Your task to perform on an android device: set default search engine in the chrome app Image 0: 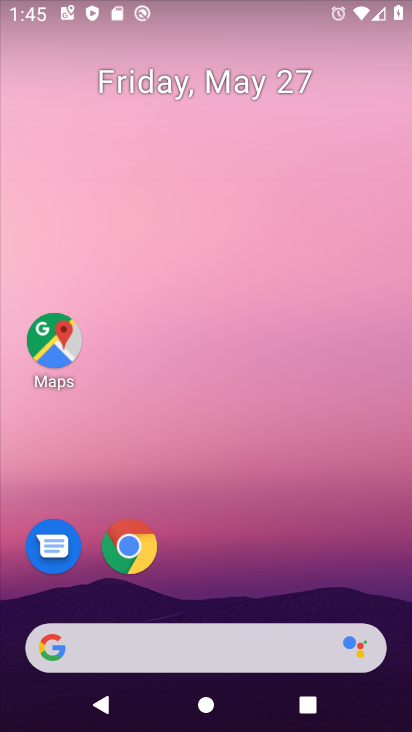
Step 0: drag from (261, 665) to (283, 335)
Your task to perform on an android device: set default search engine in the chrome app Image 1: 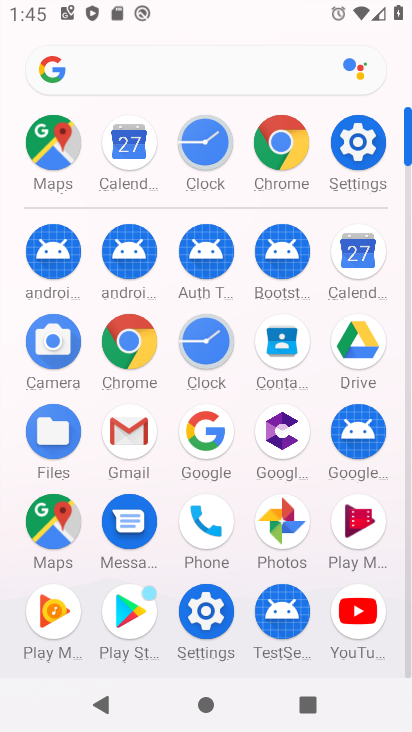
Step 1: click (267, 142)
Your task to perform on an android device: set default search engine in the chrome app Image 2: 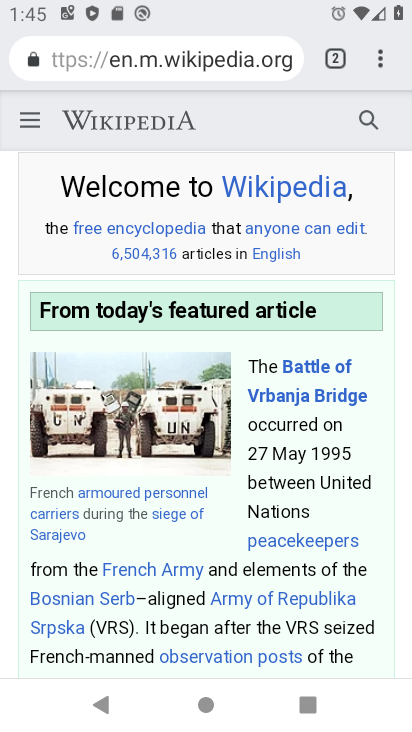
Step 2: click (379, 63)
Your task to perform on an android device: set default search engine in the chrome app Image 3: 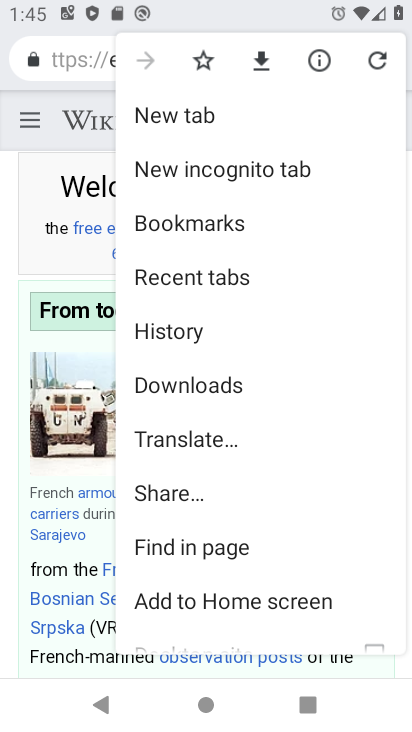
Step 3: drag from (174, 597) to (169, 281)
Your task to perform on an android device: set default search engine in the chrome app Image 4: 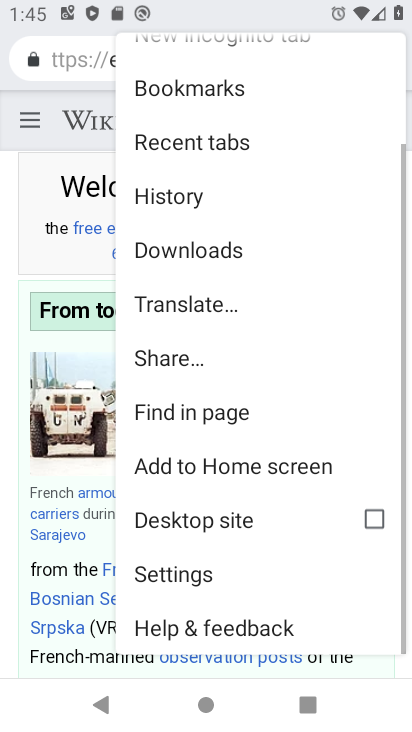
Step 4: click (208, 568)
Your task to perform on an android device: set default search engine in the chrome app Image 5: 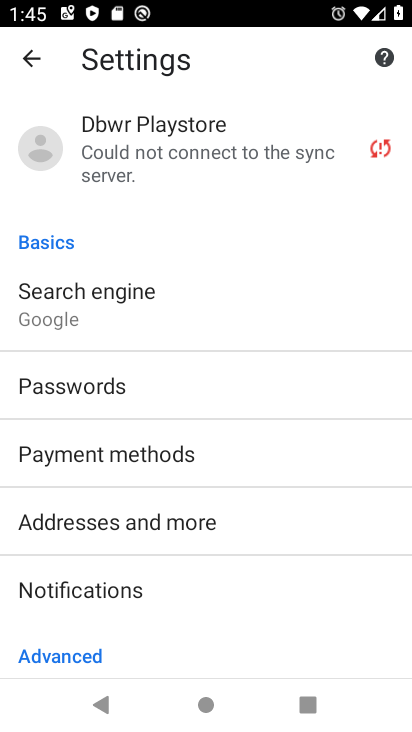
Step 5: drag from (105, 598) to (186, 277)
Your task to perform on an android device: set default search engine in the chrome app Image 6: 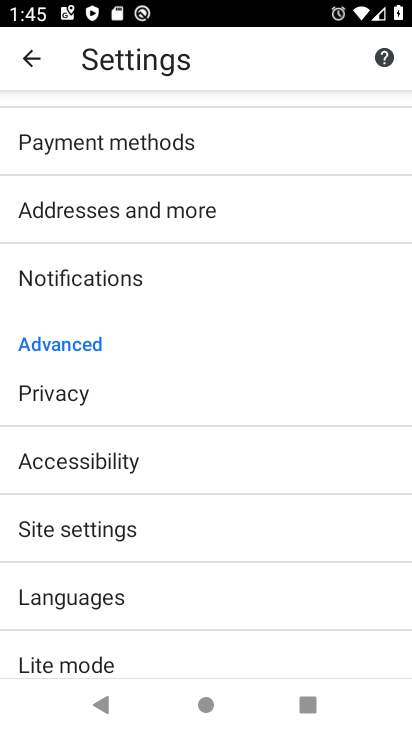
Step 6: drag from (155, 538) to (170, 461)
Your task to perform on an android device: set default search engine in the chrome app Image 7: 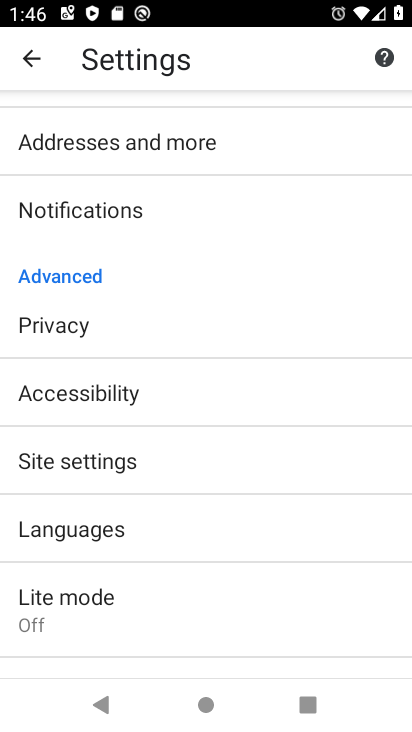
Step 7: drag from (99, 620) to (111, 439)
Your task to perform on an android device: set default search engine in the chrome app Image 8: 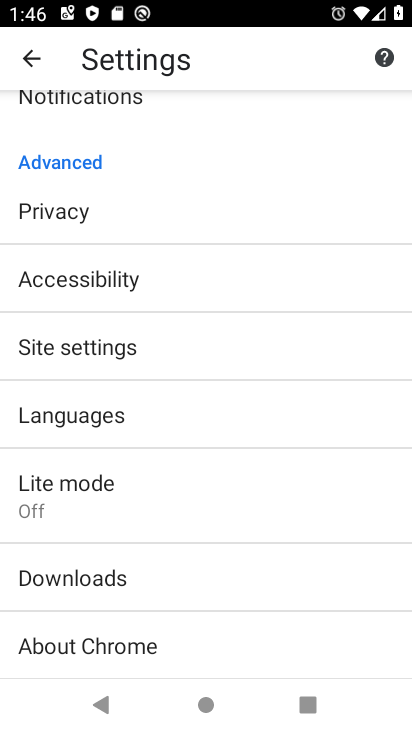
Step 8: drag from (115, 280) to (138, 411)
Your task to perform on an android device: set default search engine in the chrome app Image 9: 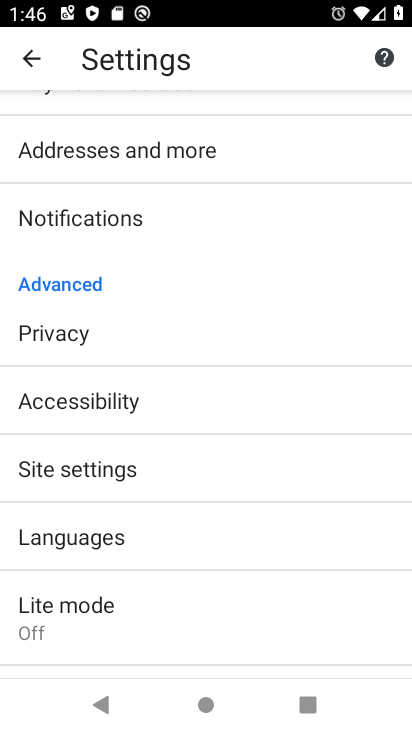
Step 9: drag from (179, 326) to (194, 417)
Your task to perform on an android device: set default search engine in the chrome app Image 10: 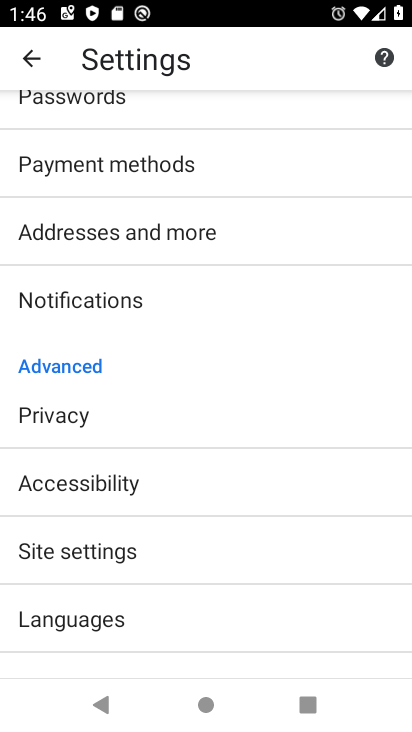
Step 10: drag from (181, 285) to (159, 581)
Your task to perform on an android device: set default search engine in the chrome app Image 11: 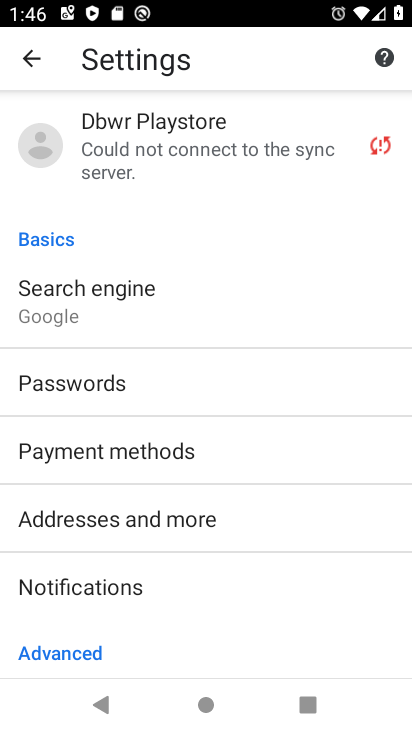
Step 11: click (94, 293)
Your task to perform on an android device: set default search engine in the chrome app Image 12: 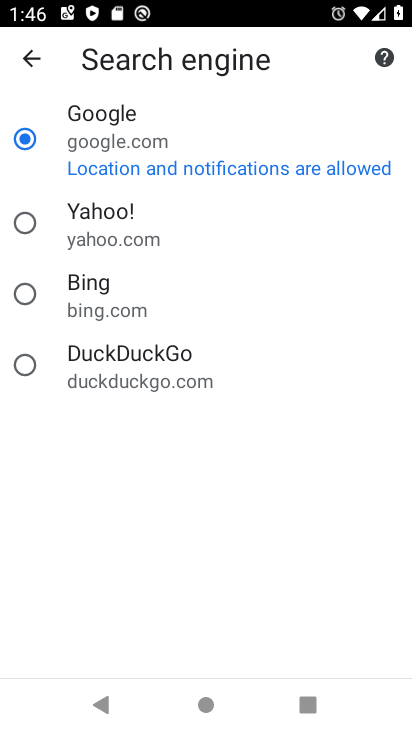
Step 12: task complete